Your task to perform on an android device: open wifi settings Image 0: 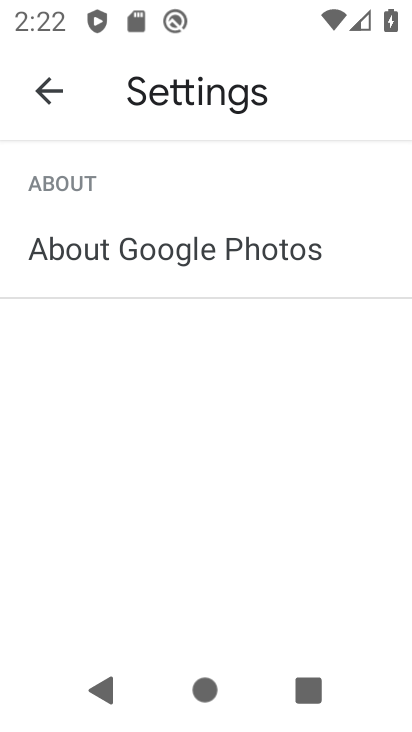
Step 0: drag from (212, 9) to (232, 341)
Your task to perform on an android device: open wifi settings Image 1: 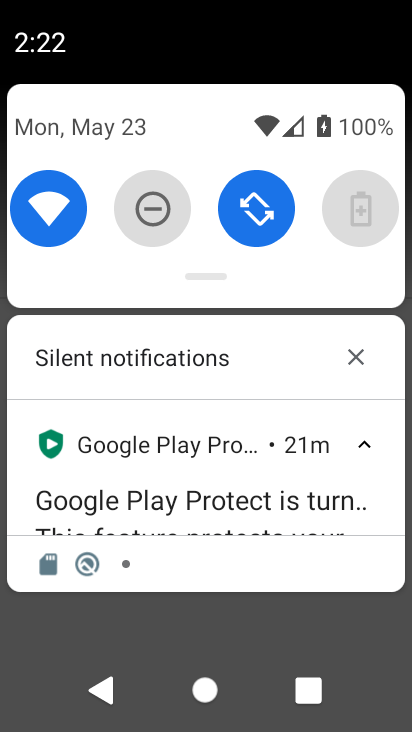
Step 1: click (46, 218)
Your task to perform on an android device: open wifi settings Image 2: 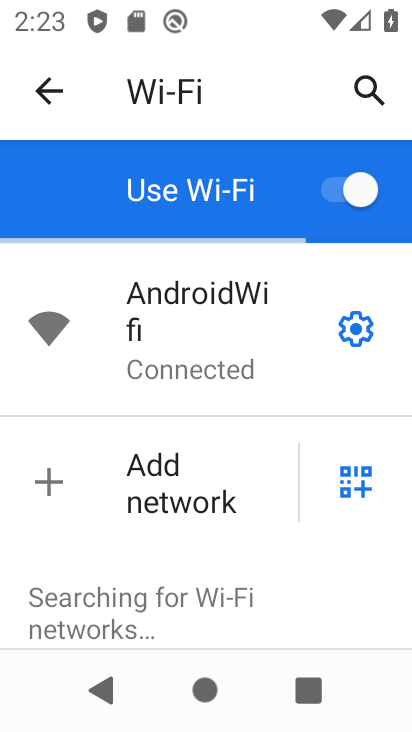
Step 2: task complete